Your task to perform on an android device: change alarm snooze length Image 0: 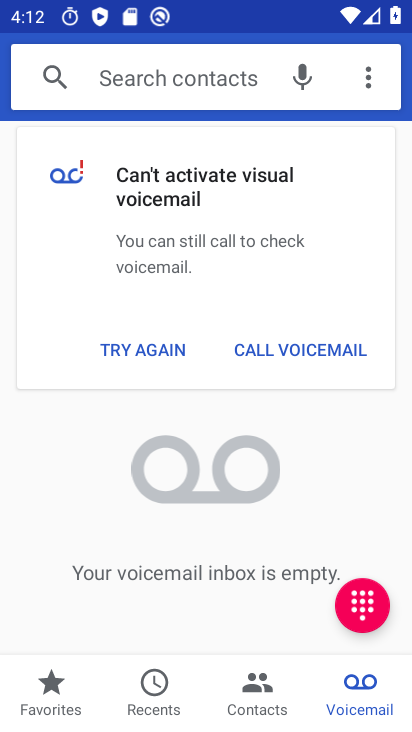
Step 0: press home button
Your task to perform on an android device: change alarm snooze length Image 1: 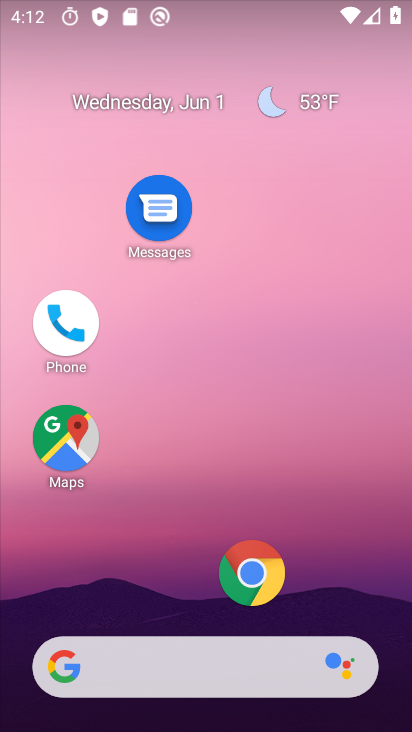
Step 1: drag from (165, 573) to (217, 106)
Your task to perform on an android device: change alarm snooze length Image 2: 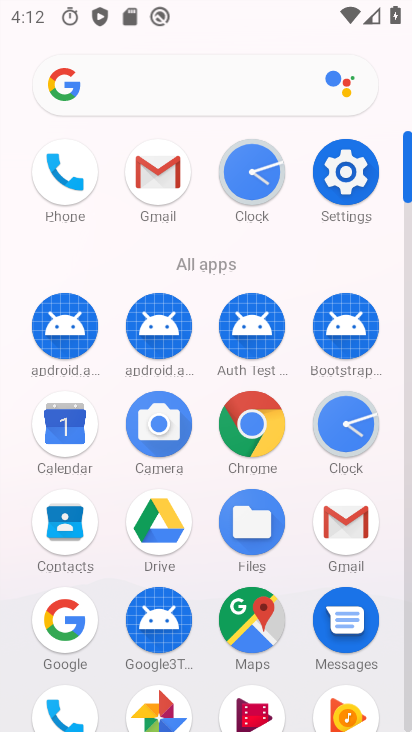
Step 2: click (329, 442)
Your task to perform on an android device: change alarm snooze length Image 3: 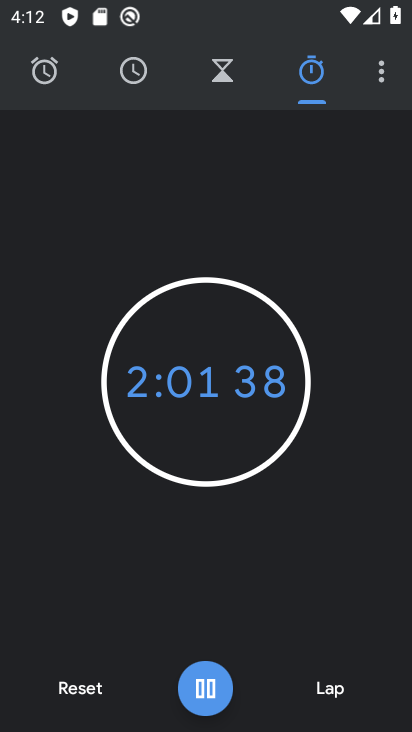
Step 3: click (399, 86)
Your task to perform on an android device: change alarm snooze length Image 4: 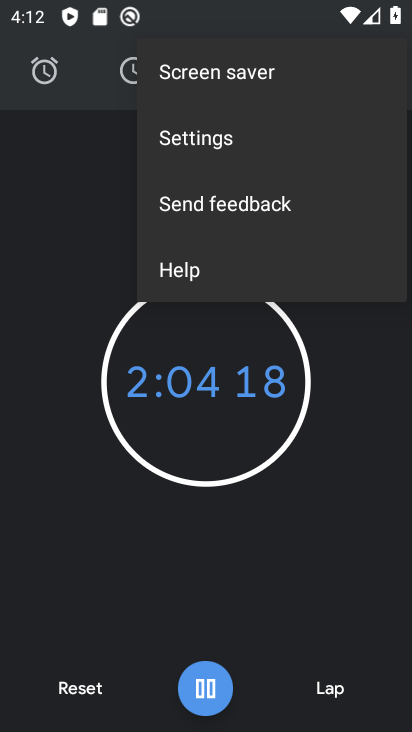
Step 4: click (246, 146)
Your task to perform on an android device: change alarm snooze length Image 5: 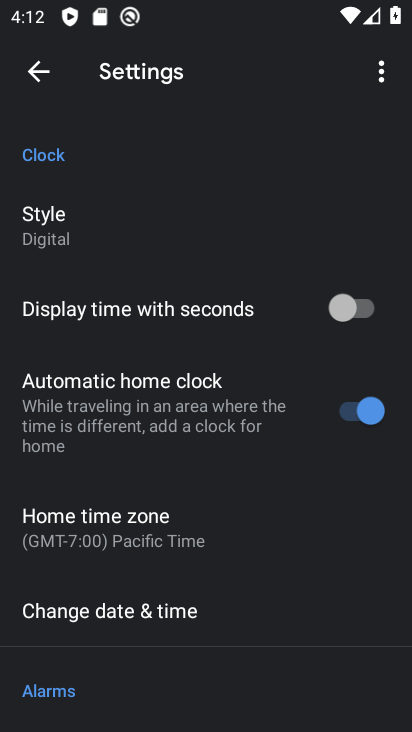
Step 5: drag from (158, 594) to (197, 179)
Your task to perform on an android device: change alarm snooze length Image 6: 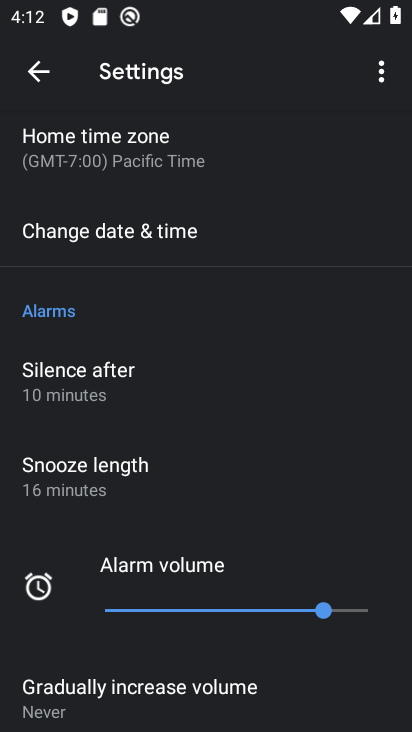
Step 6: drag from (139, 653) to (176, 165)
Your task to perform on an android device: change alarm snooze length Image 7: 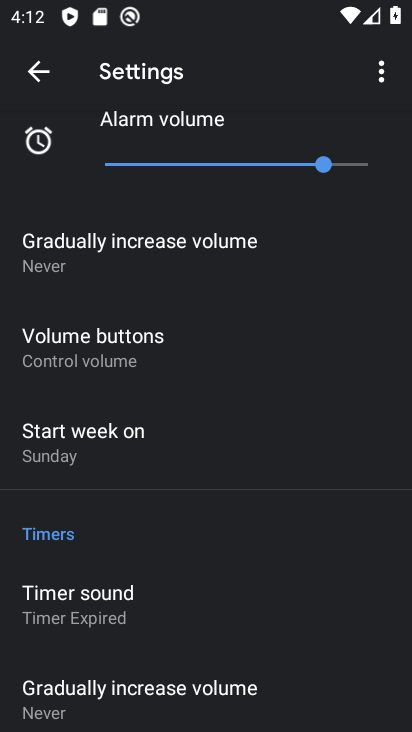
Step 7: drag from (158, 280) to (129, 698)
Your task to perform on an android device: change alarm snooze length Image 8: 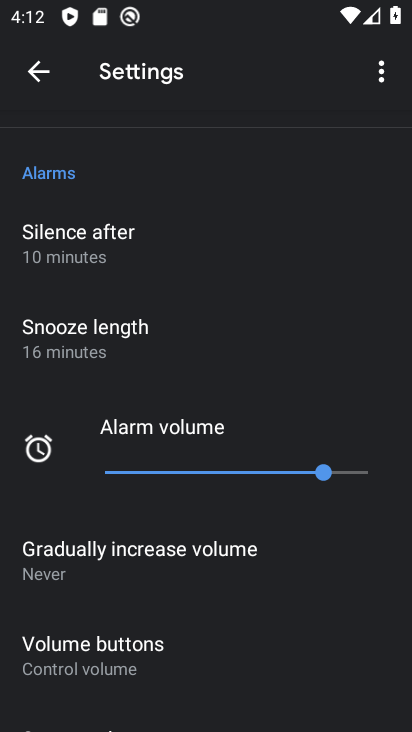
Step 8: click (97, 330)
Your task to perform on an android device: change alarm snooze length Image 9: 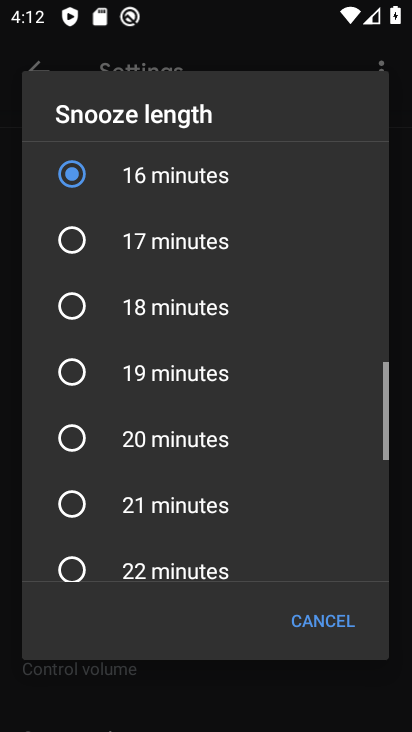
Step 9: click (147, 575)
Your task to perform on an android device: change alarm snooze length Image 10: 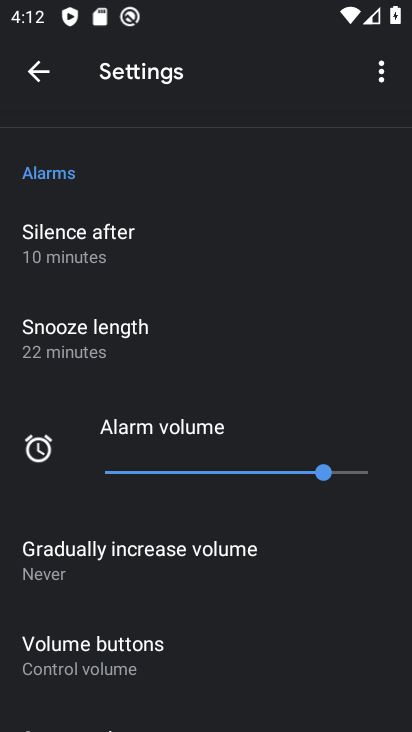
Step 10: task complete